Your task to perform on an android device: Open the calendar app, open the side menu, and click the "Day" option Image 0: 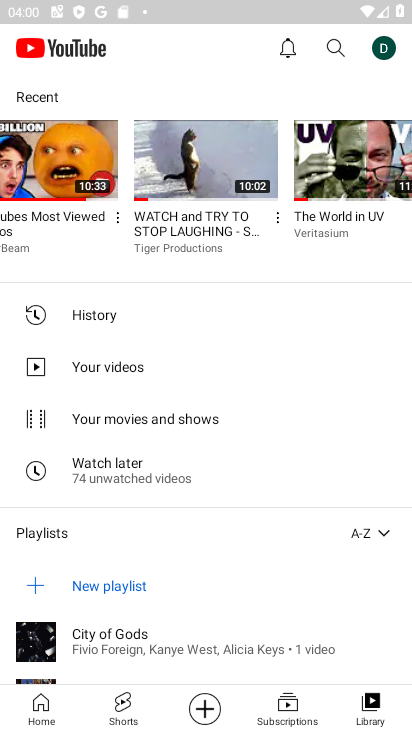
Step 0: press home button
Your task to perform on an android device: Open the calendar app, open the side menu, and click the "Day" option Image 1: 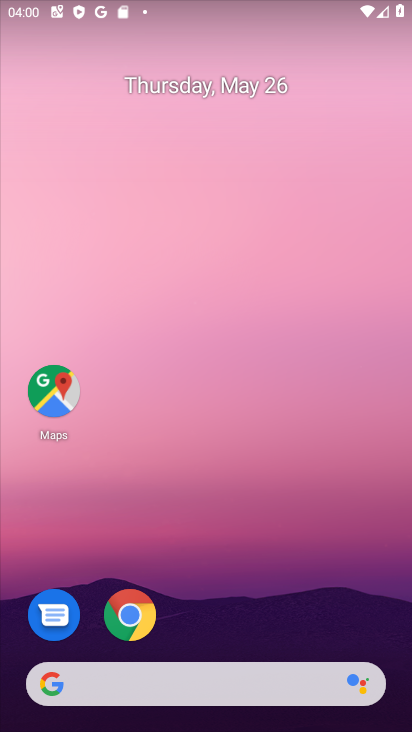
Step 1: drag from (229, 627) to (184, 164)
Your task to perform on an android device: Open the calendar app, open the side menu, and click the "Day" option Image 2: 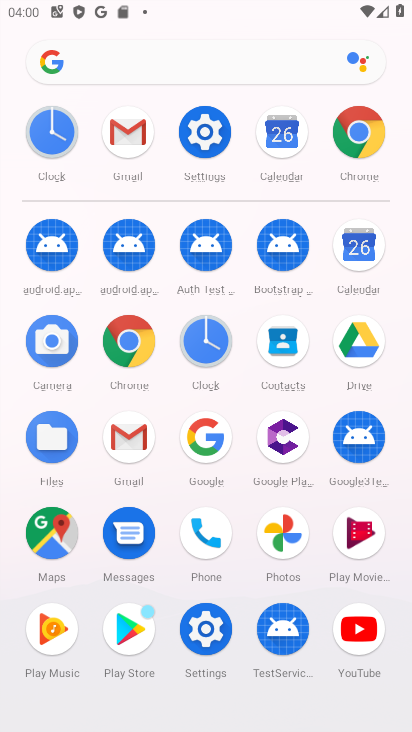
Step 2: click (361, 262)
Your task to perform on an android device: Open the calendar app, open the side menu, and click the "Day" option Image 3: 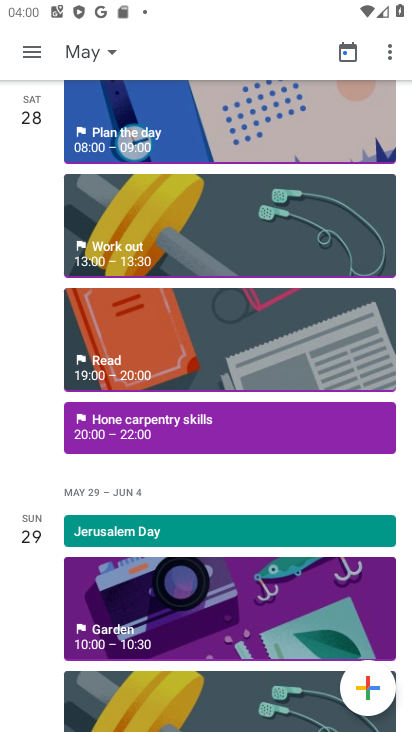
Step 3: click (33, 53)
Your task to perform on an android device: Open the calendar app, open the side menu, and click the "Day" option Image 4: 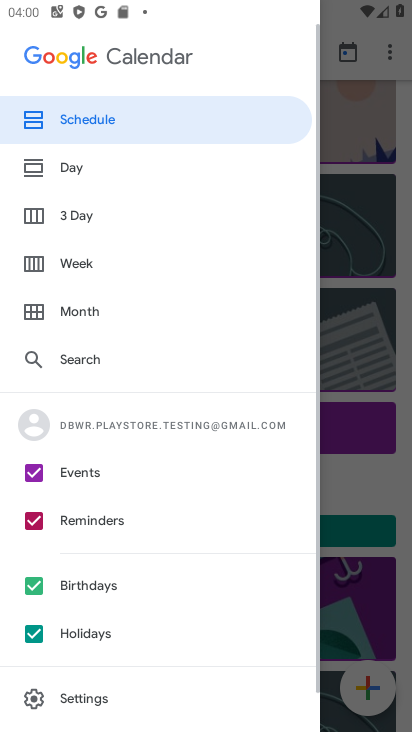
Step 4: click (65, 177)
Your task to perform on an android device: Open the calendar app, open the side menu, and click the "Day" option Image 5: 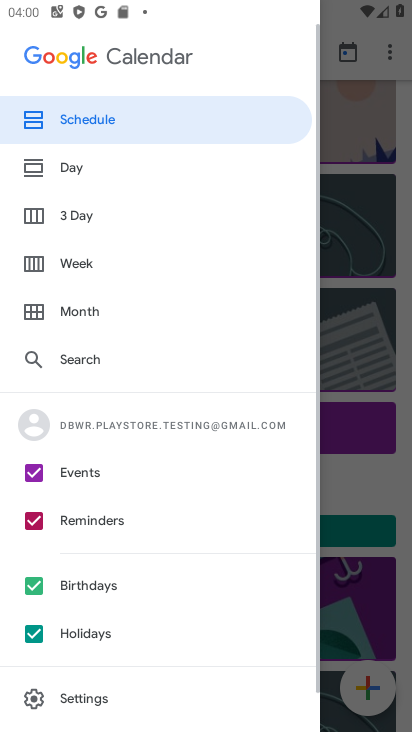
Step 5: click (65, 175)
Your task to perform on an android device: Open the calendar app, open the side menu, and click the "Day" option Image 6: 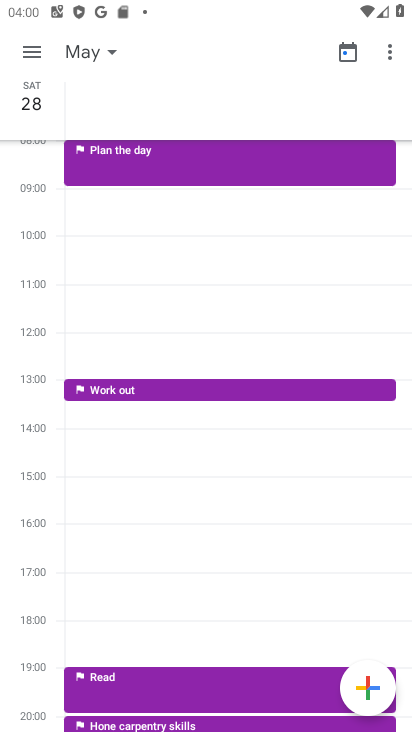
Step 6: task complete